Your task to perform on an android device: Search for sushi restaurants on Maps Image 0: 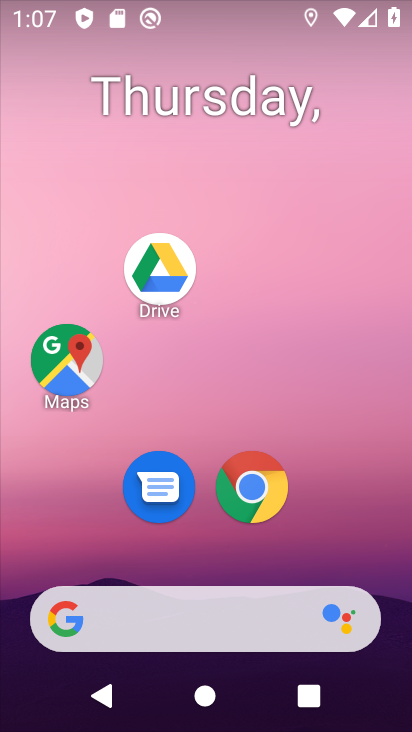
Step 0: click (80, 349)
Your task to perform on an android device: Search for sushi restaurants on Maps Image 1: 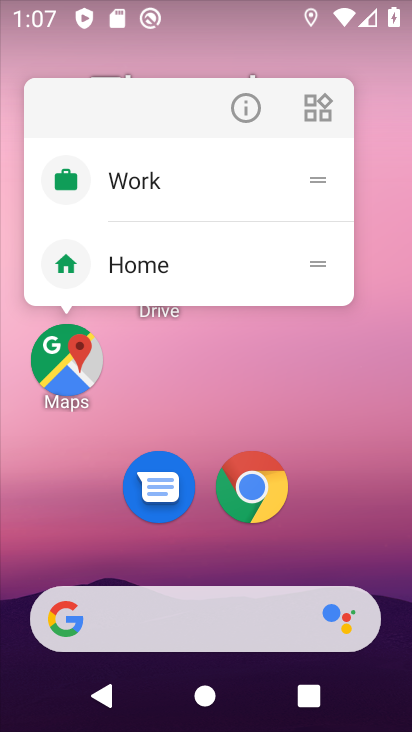
Step 1: click (74, 373)
Your task to perform on an android device: Search for sushi restaurants on Maps Image 2: 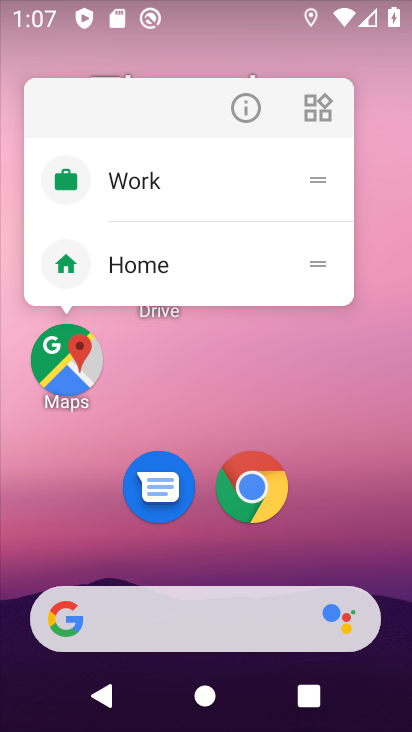
Step 2: click (76, 353)
Your task to perform on an android device: Search for sushi restaurants on Maps Image 3: 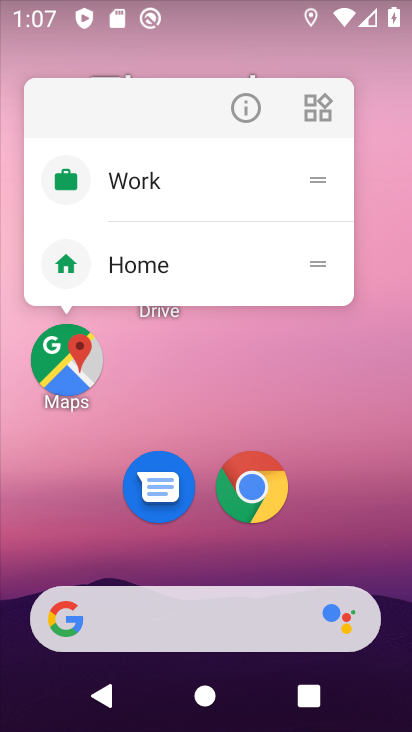
Step 3: click (76, 353)
Your task to perform on an android device: Search for sushi restaurants on Maps Image 4: 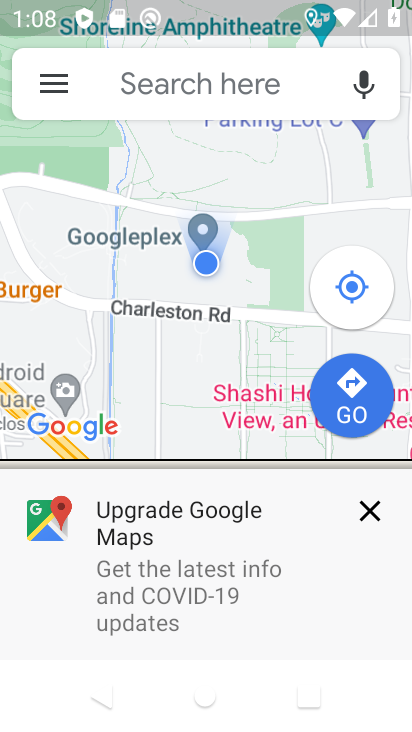
Step 4: click (233, 79)
Your task to perform on an android device: Search for sushi restaurants on Maps Image 5: 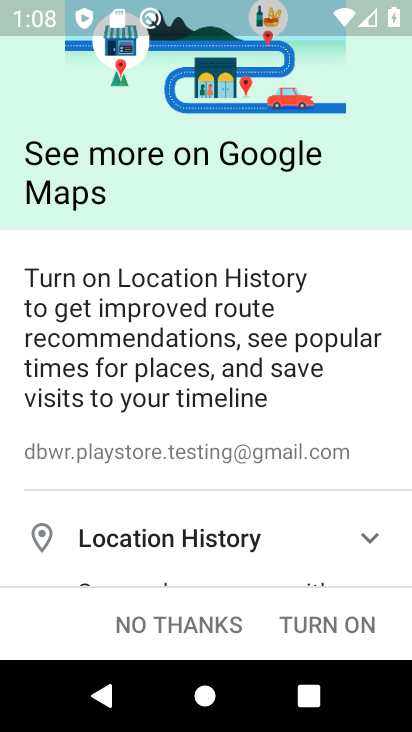
Step 5: click (348, 619)
Your task to perform on an android device: Search for sushi restaurants on Maps Image 6: 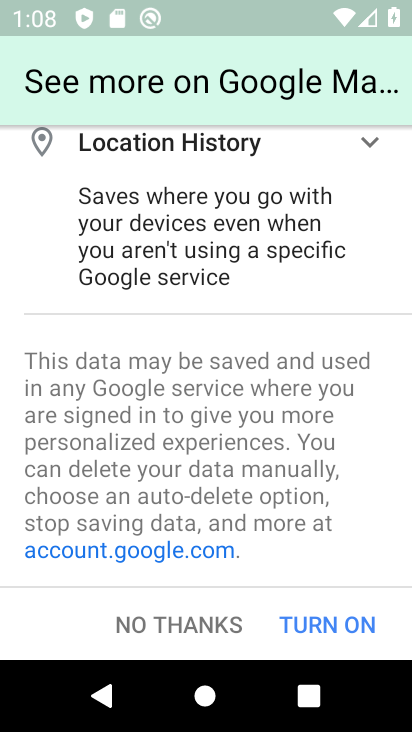
Step 6: click (358, 611)
Your task to perform on an android device: Search for sushi restaurants on Maps Image 7: 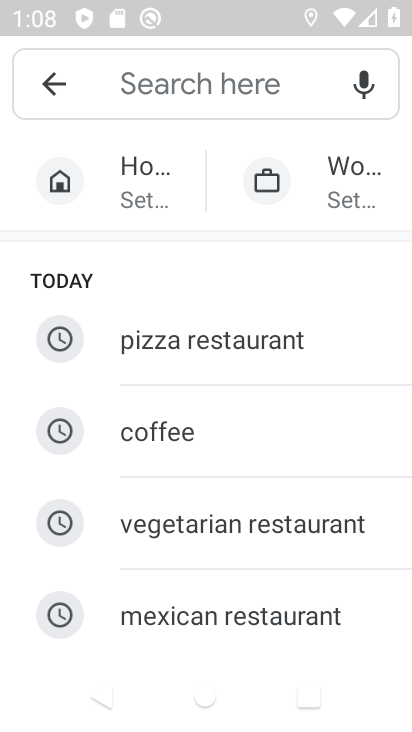
Step 7: drag from (247, 498) to (209, 283)
Your task to perform on an android device: Search for sushi restaurants on Maps Image 8: 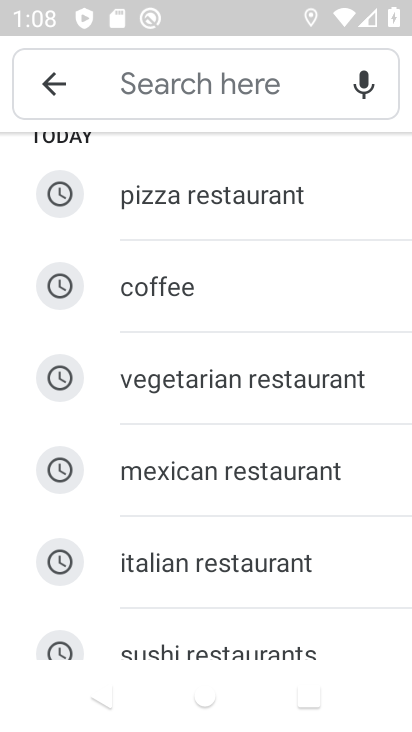
Step 8: click (232, 628)
Your task to perform on an android device: Search for sushi restaurants on Maps Image 9: 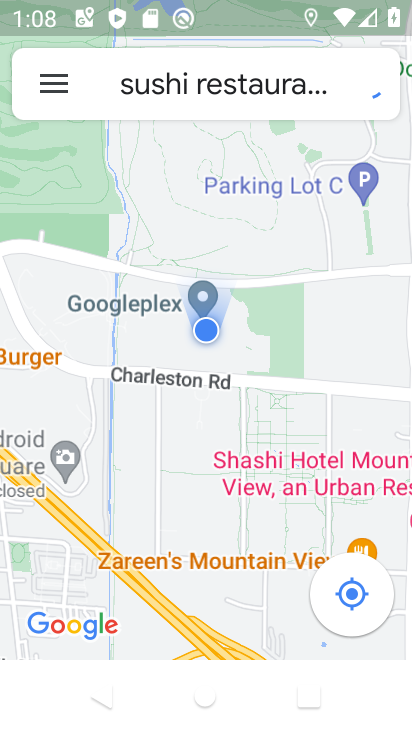
Step 9: task complete